Your task to perform on an android device: show emergency info Image 0: 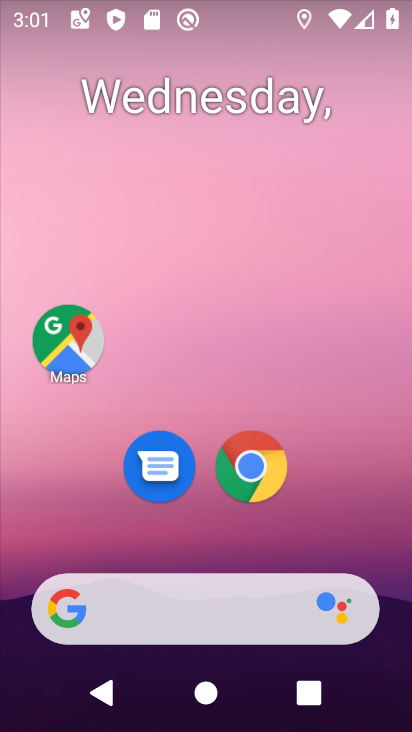
Step 0: drag from (258, 578) to (213, 0)
Your task to perform on an android device: show emergency info Image 1: 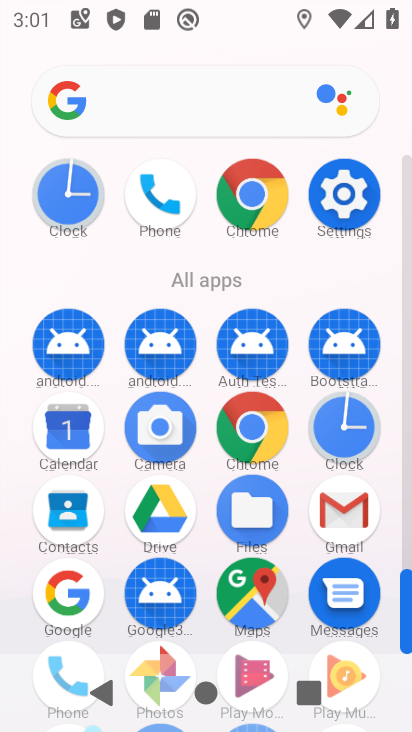
Step 1: click (341, 186)
Your task to perform on an android device: show emergency info Image 2: 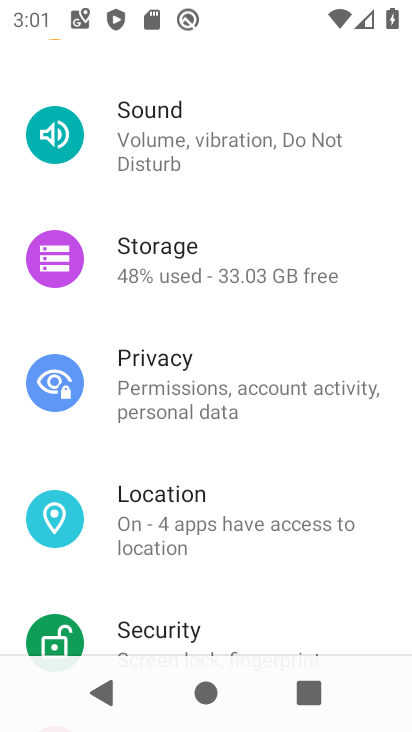
Step 2: drag from (204, 535) to (162, 130)
Your task to perform on an android device: show emergency info Image 3: 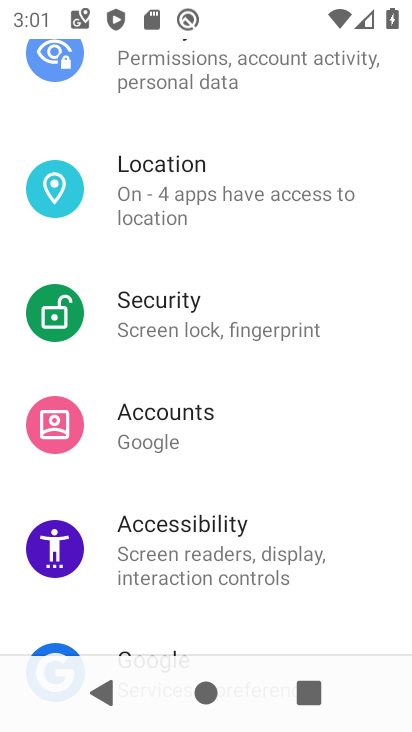
Step 3: drag from (215, 638) to (163, 31)
Your task to perform on an android device: show emergency info Image 4: 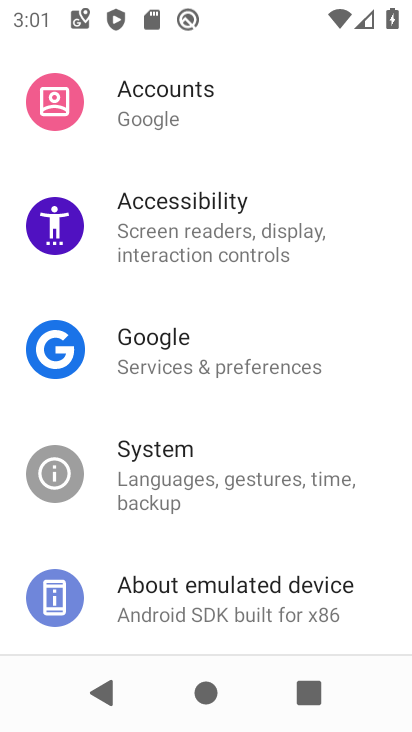
Step 4: drag from (210, 516) to (177, 183)
Your task to perform on an android device: show emergency info Image 5: 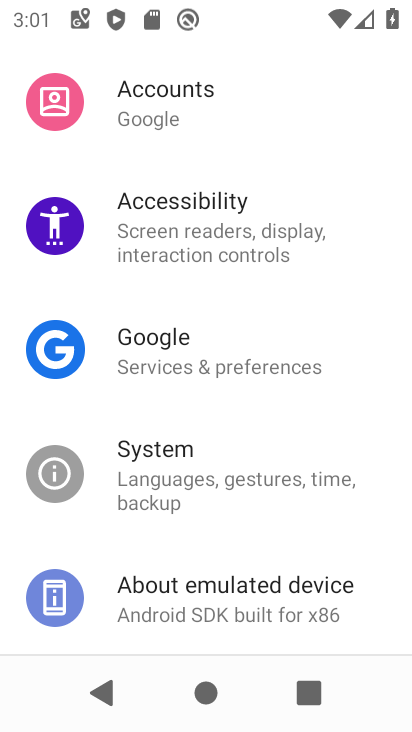
Step 5: click (220, 569)
Your task to perform on an android device: show emergency info Image 6: 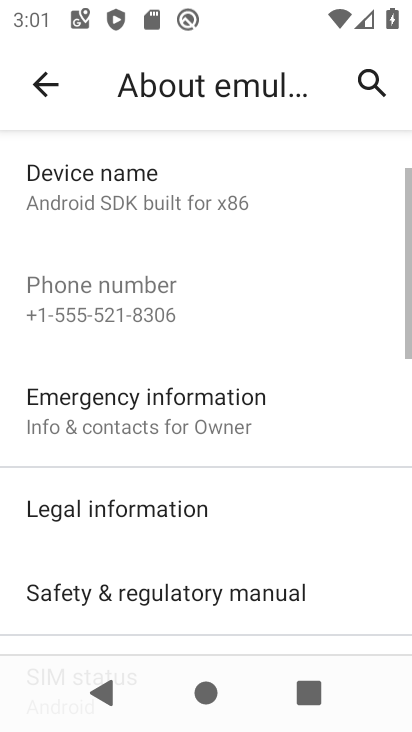
Step 6: click (169, 447)
Your task to perform on an android device: show emergency info Image 7: 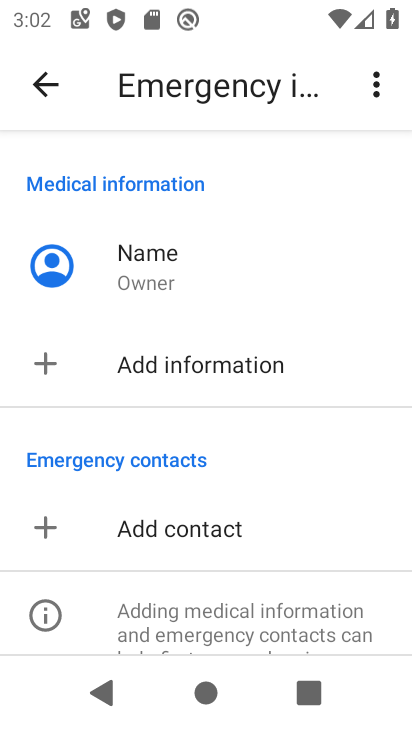
Step 7: task complete